Your task to perform on an android device: delete the emails in spam in the gmail app Image 0: 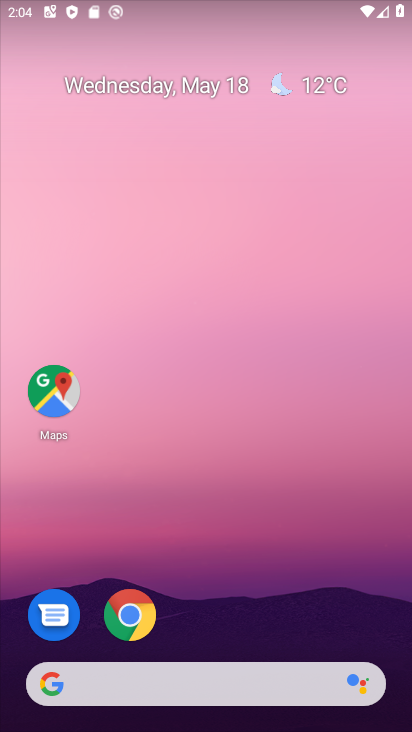
Step 0: drag from (325, 619) to (277, 125)
Your task to perform on an android device: delete the emails in spam in the gmail app Image 1: 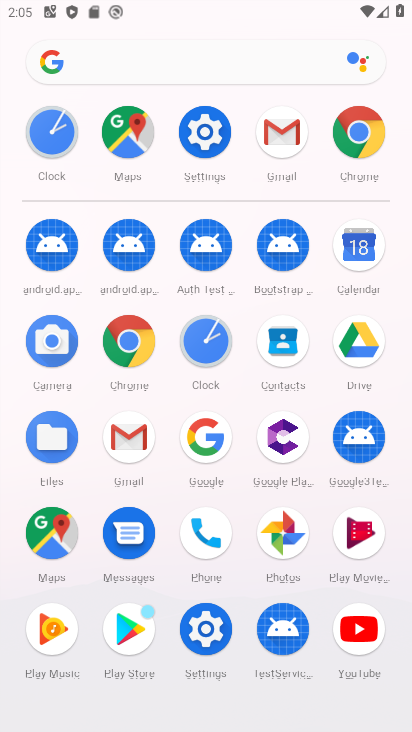
Step 1: click (139, 448)
Your task to perform on an android device: delete the emails in spam in the gmail app Image 2: 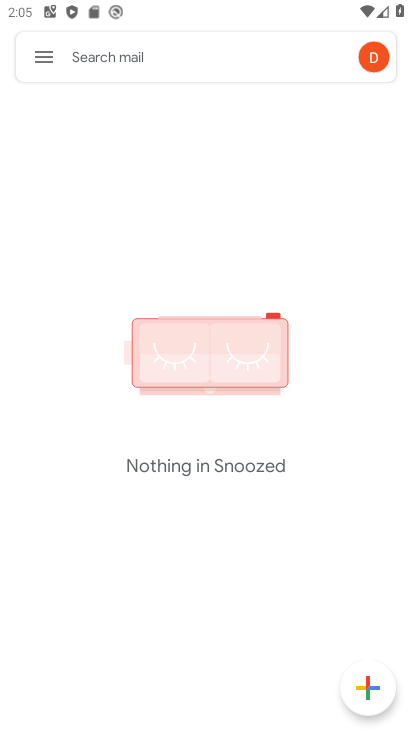
Step 2: click (30, 50)
Your task to perform on an android device: delete the emails in spam in the gmail app Image 3: 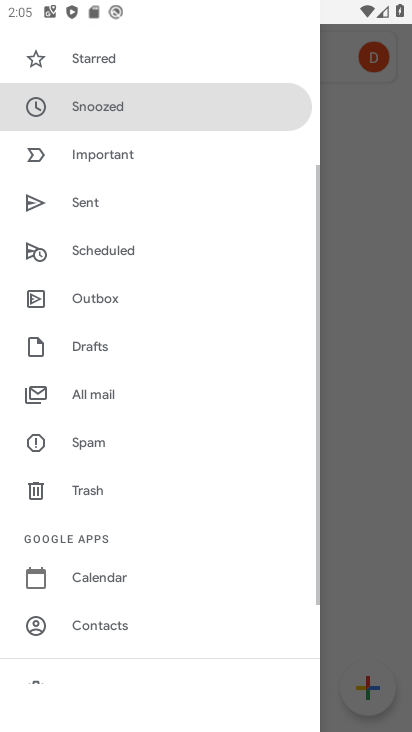
Step 3: click (87, 444)
Your task to perform on an android device: delete the emails in spam in the gmail app Image 4: 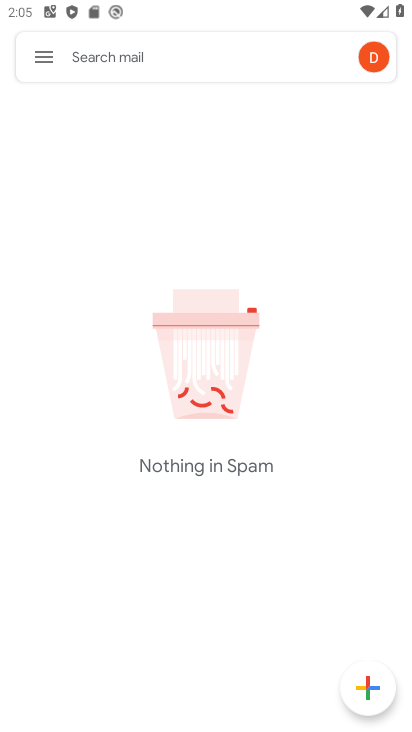
Step 4: task complete